Your task to perform on an android device: See recent photos Image 0: 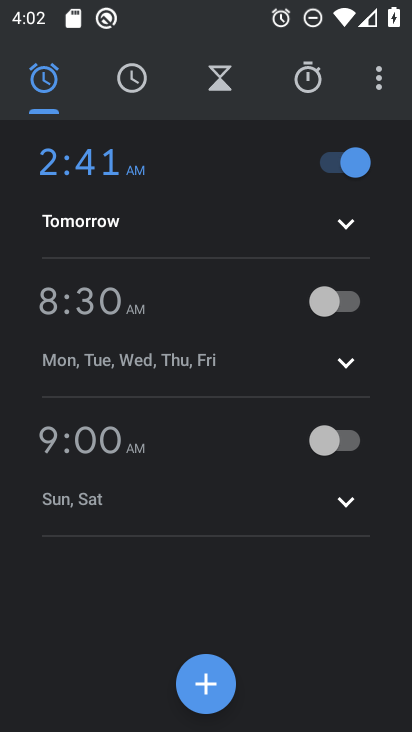
Step 0: press home button
Your task to perform on an android device: See recent photos Image 1: 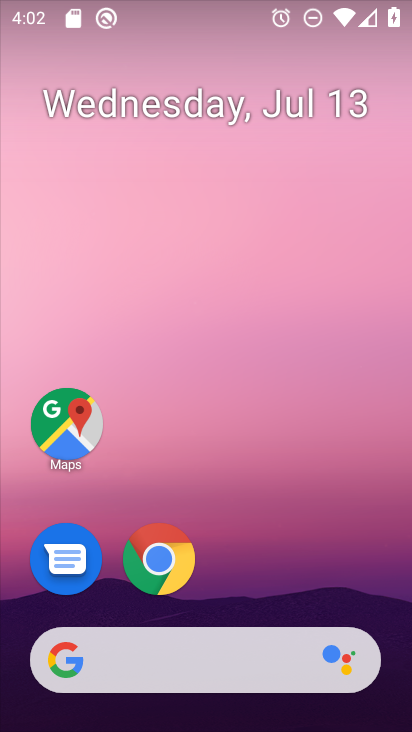
Step 1: drag from (341, 571) to (338, 131)
Your task to perform on an android device: See recent photos Image 2: 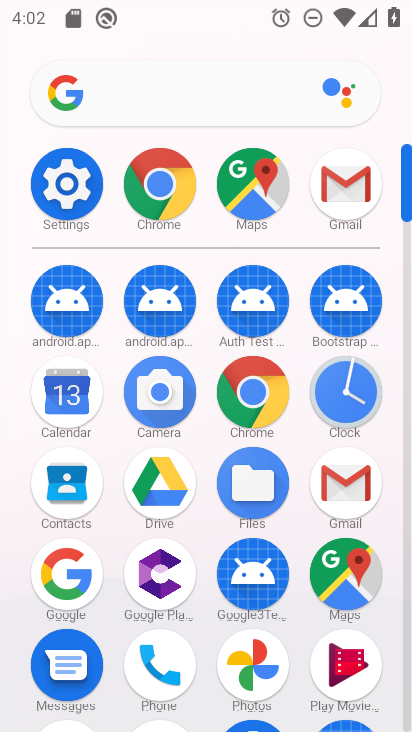
Step 2: click (255, 654)
Your task to perform on an android device: See recent photos Image 3: 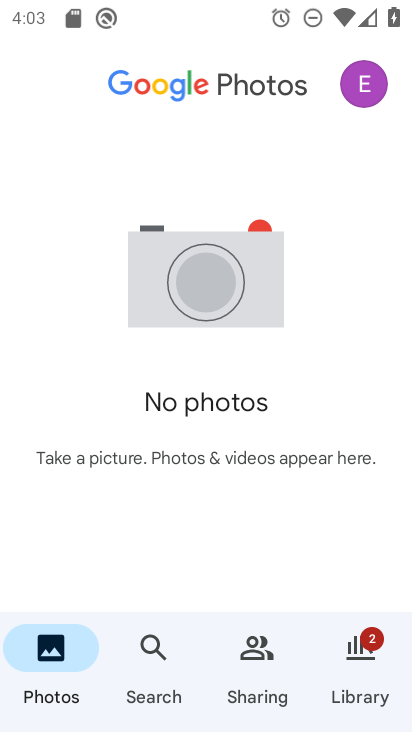
Step 3: task complete